Your task to perform on an android device: Is it going to rain tomorrow? Image 0: 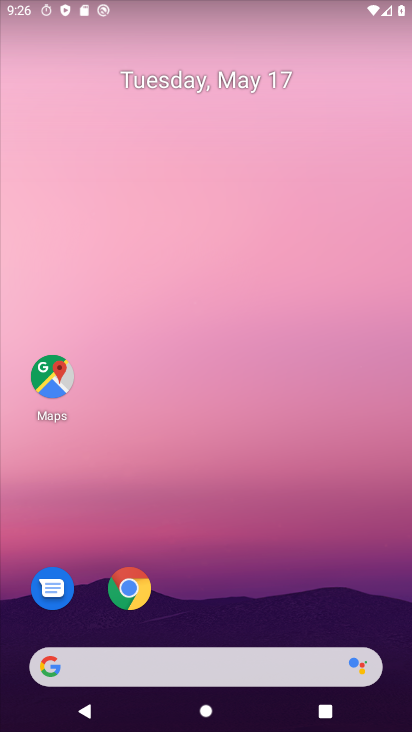
Step 0: drag from (269, 712) to (240, 215)
Your task to perform on an android device: Is it going to rain tomorrow? Image 1: 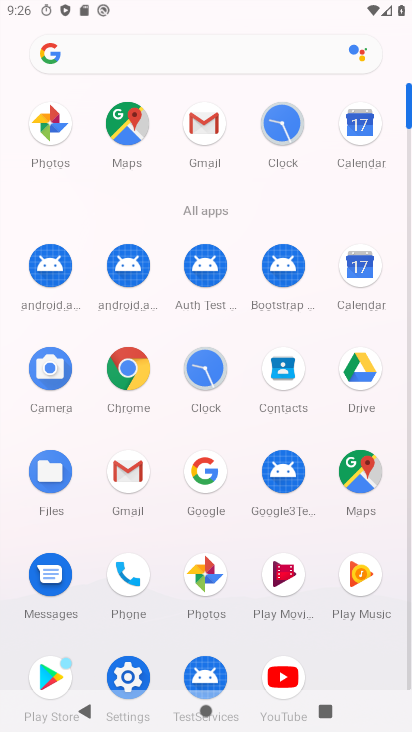
Step 1: press back button
Your task to perform on an android device: Is it going to rain tomorrow? Image 2: 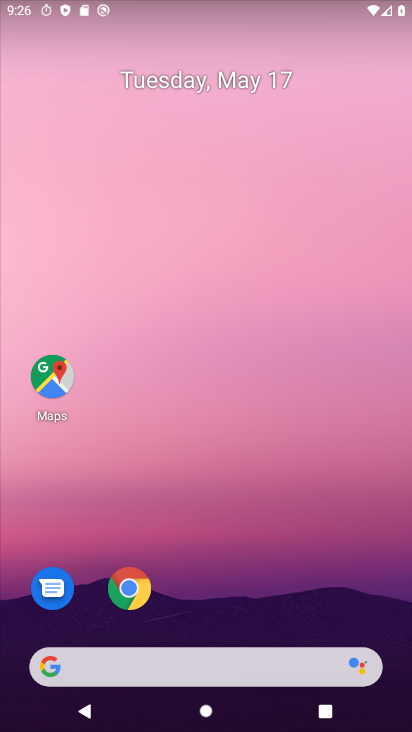
Step 2: drag from (0, 227) to (388, 446)
Your task to perform on an android device: Is it going to rain tomorrow? Image 3: 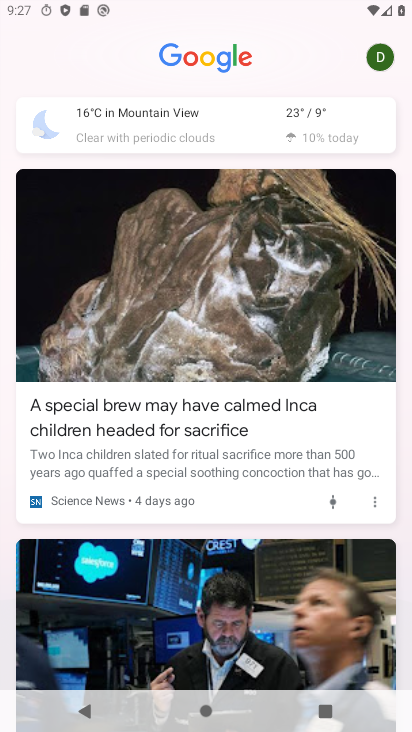
Step 3: click (171, 132)
Your task to perform on an android device: Is it going to rain tomorrow? Image 4: 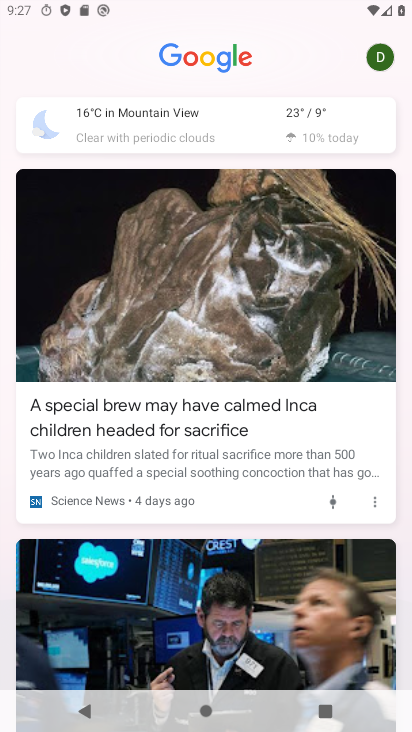
Step 4: click (171, 132)
Your task to perform on an android device: Is it going to rain tomorrow? Image 5: 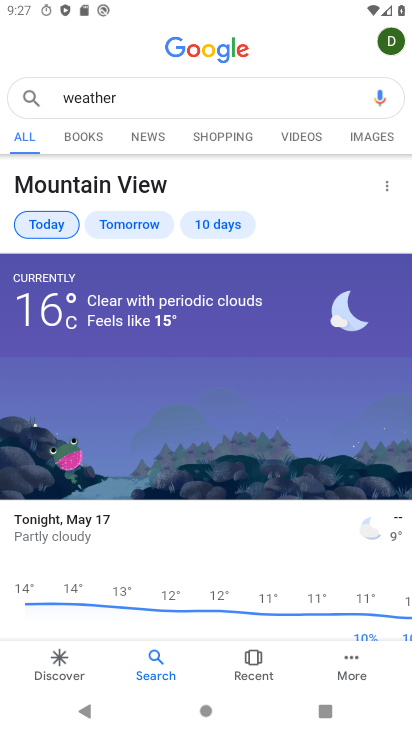
Step 5: click (134, 219)
Your task to perform on an android device: Is it going to rain tomorrow? Image 6: 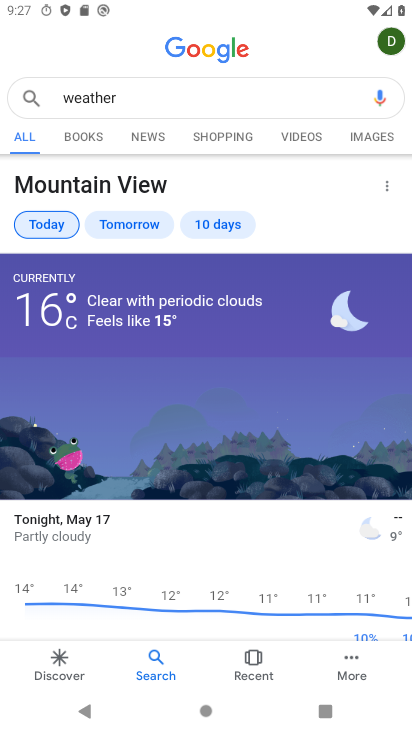
Step 6: click (134, 219)
Your task to perform on an android device: Is it going to rain tomorrow? Image 7: 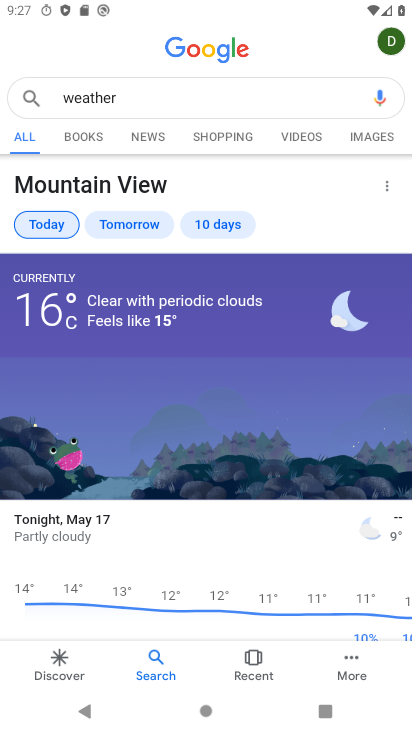
Step 7: click (131, 228)
Your task to perform on an android device: Is it going to rain tomorrow? Image 8: 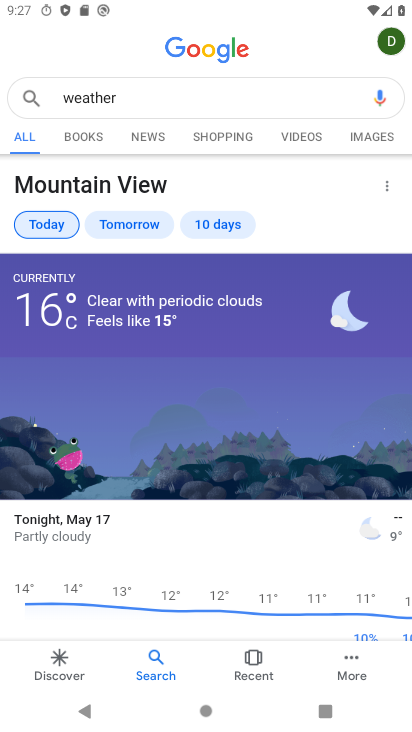
Step 8: click (131, 228)
Your task to perform on an android device: Is it going to rain tomorrow? Image 9: 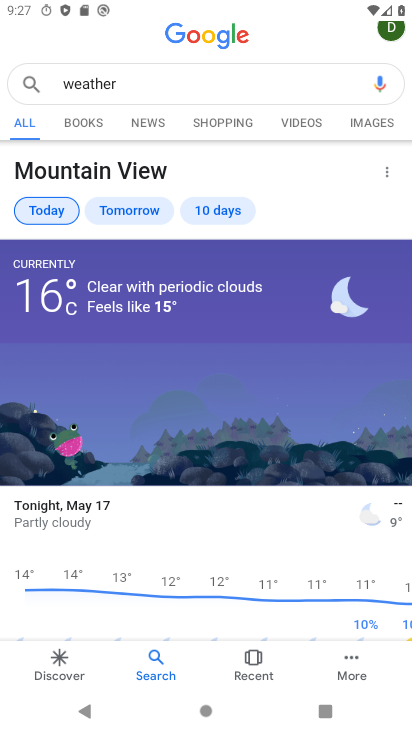
Step 9: task complete